Your task to perform on an android device: turn off airplane mode Image 0: 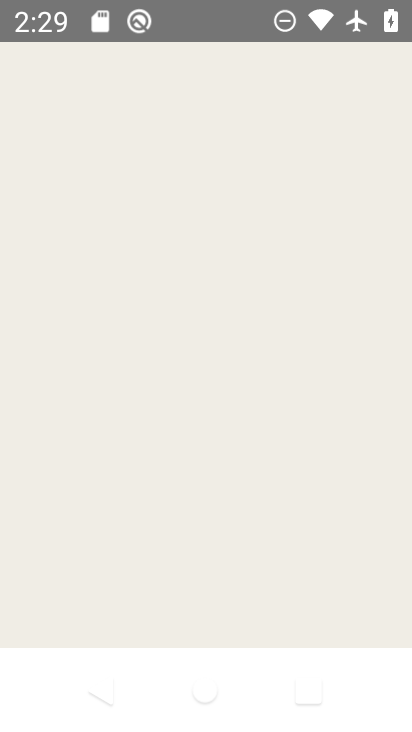
Step 0: drag from (379, 596) to (264, 72)
Your task to perform on an android device: turn off airplane mode Image 1: 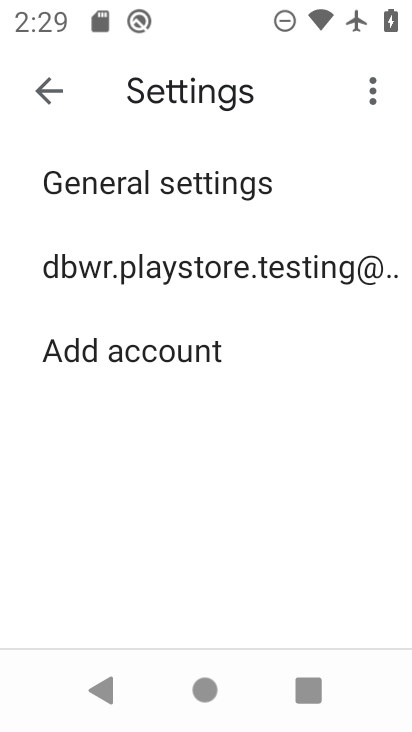
Step 1: press home button
Your task to perform on an android device: turn off airplane mode Image 2: 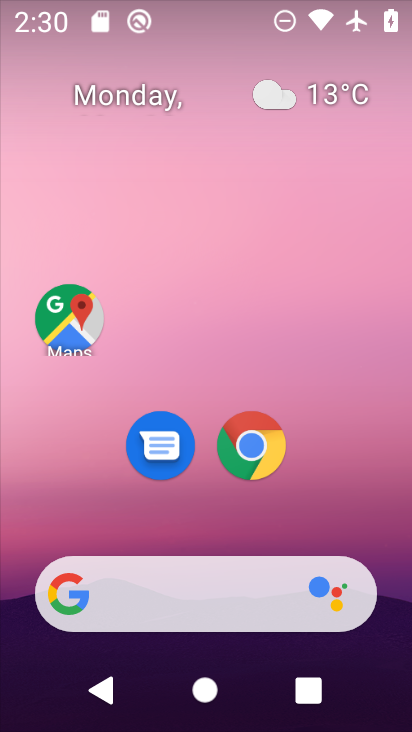
Step 2: drag from (231, 9) to (253, 610)
Your task to perform on an android device: turn off airplane mode Image 3: 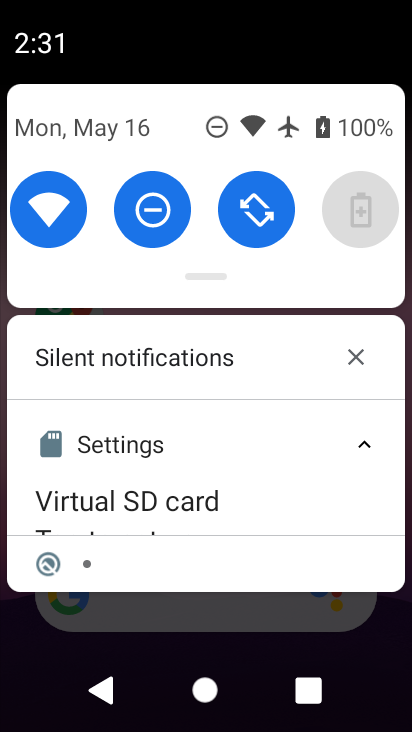
Step 3: drag from (328, 260) to (280, 684)
Your task to perform on an android device: turn off airplane mode Image 4: 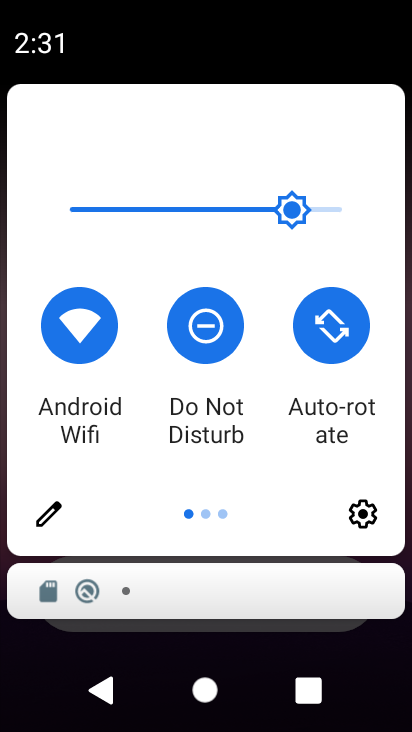
Step 4: drag from (330, 421) to (31, 365)
Your task to perform on an android device: turn off airplane mode Image 5: 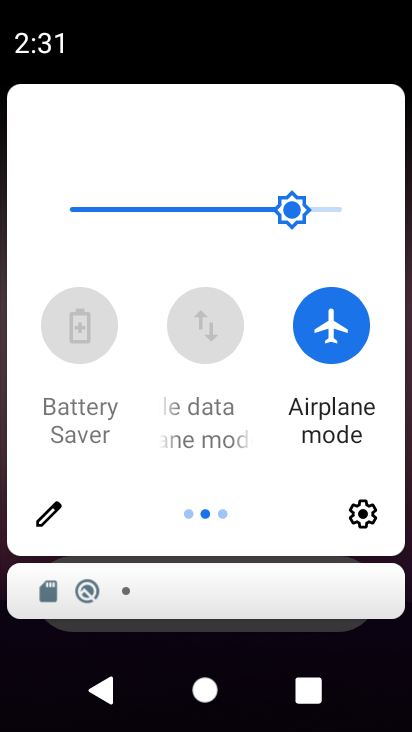
Step 5: click (307, 329)
Your task to perform on an android device: turn off airplane mode Image 6: 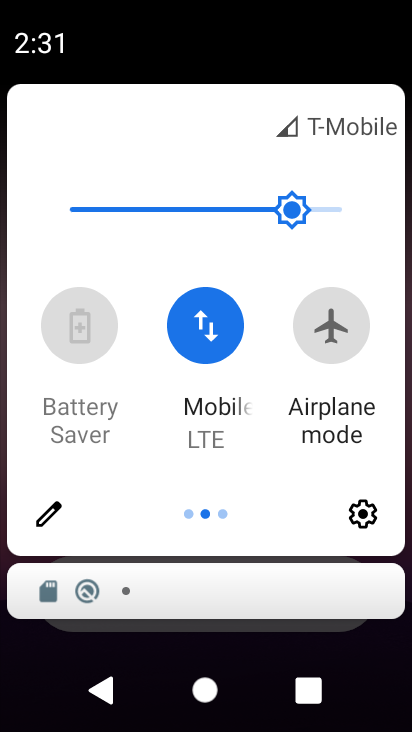
Step 6: task complete